Your task to perform on an android device: check storage Image 0: 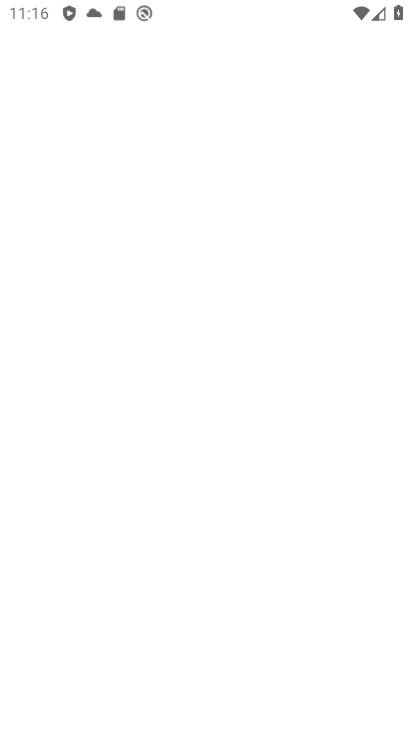
Step 0: click (51, 375)
Your task to perform on an android device: check storage Image 1: 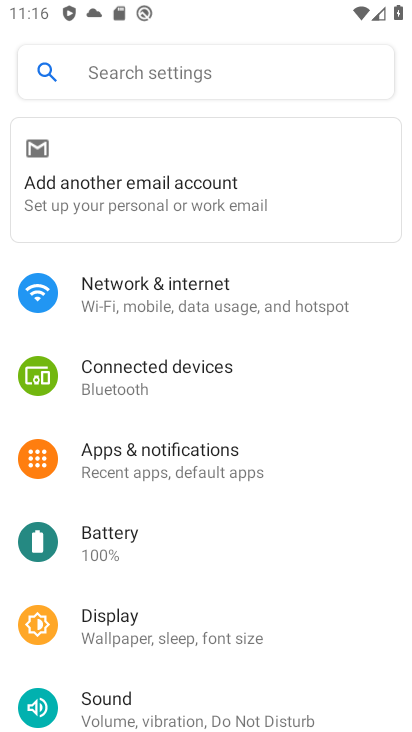
Step 1: press home button
Your task to perform on an android device: check storage Image 2: 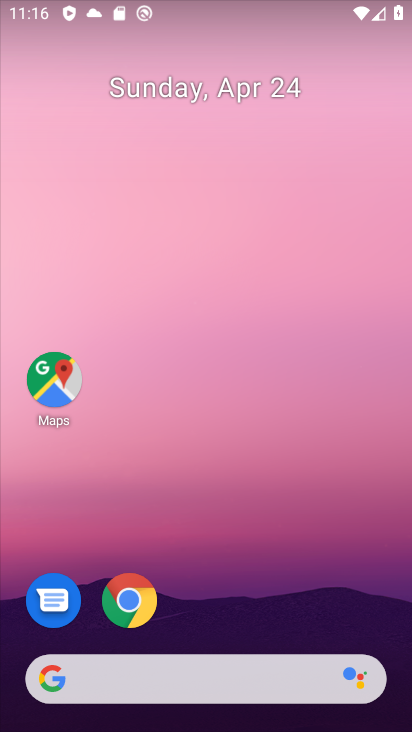
Step 2: drag from (254, 601) to (191, 11)
Your task to perform on an android device: check storage Image 3: 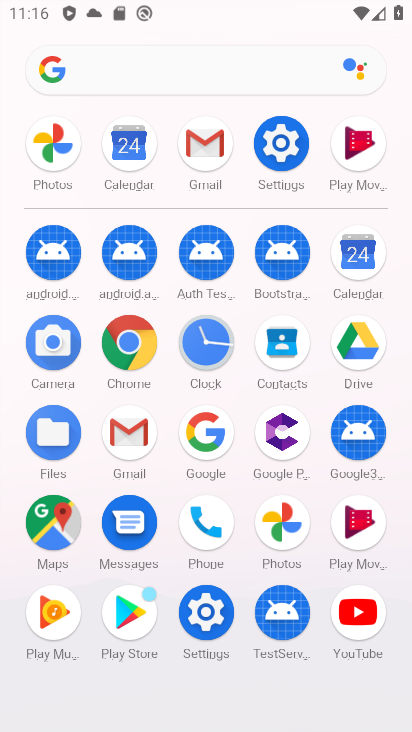
Step 3: click (278, 145)
Your task to perform on an android device: check storage Image 4: 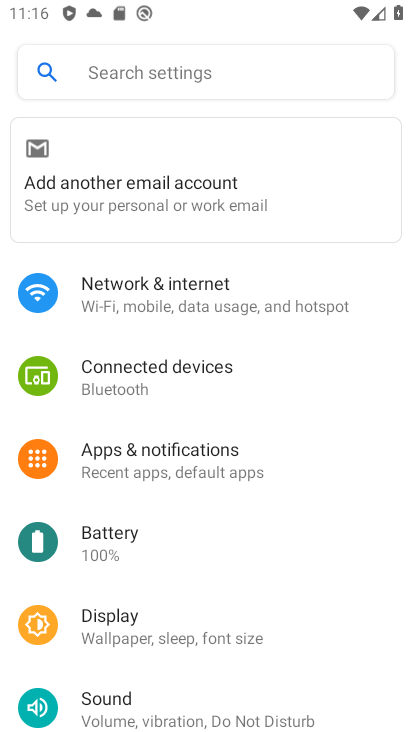
Step 4: drag from (187, 612) to (93, 191)
Your task to perform on an android device: check storage Image 5: 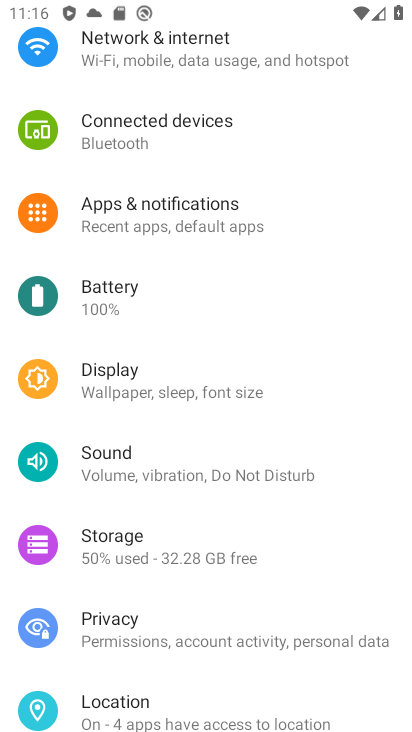
Step 5: click (110, 535)
Your task to perform on an android device: check storage Image 6: 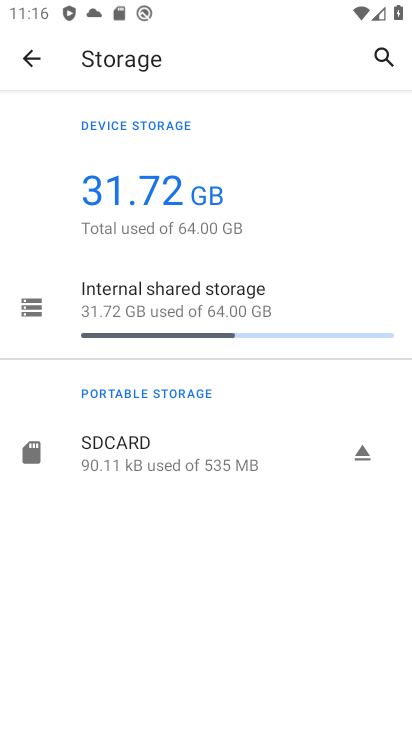
Step 6: task complete